Your task to perform on an android device: Open the map Image 0: 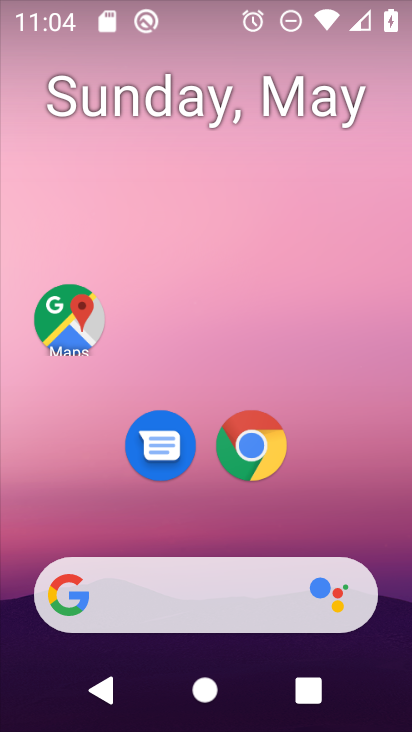
Step 0: drag from (178, 655) to (256, 107)
Your task to perform on an android device: Open the map Image 1: 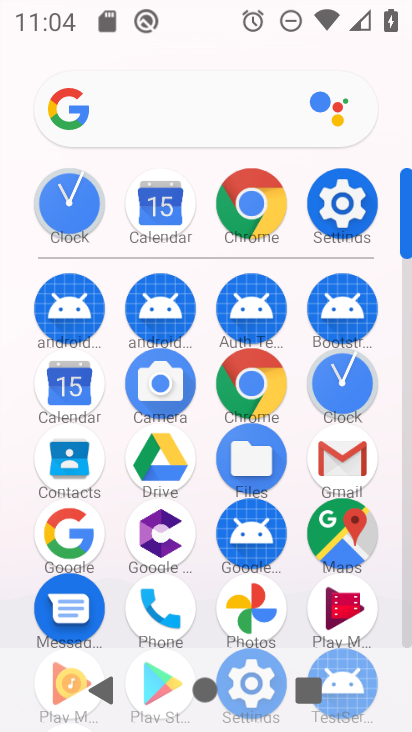
Step 1: click (351, 535)
Your task to perform on an android device: Open the map Image 2: 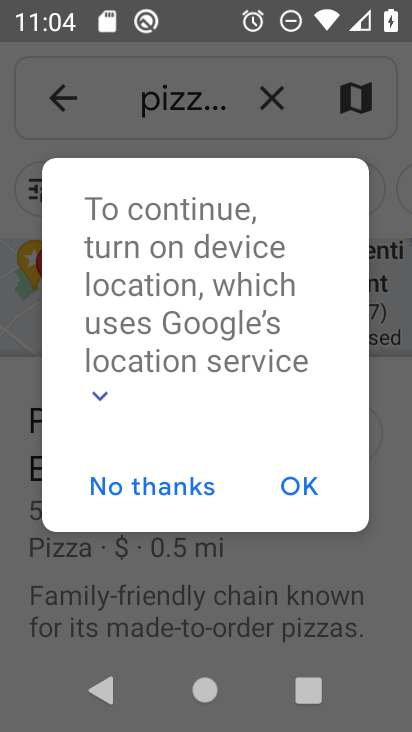
Step 2: click (313, 497)
Your task to perform on an android device: Open the map Image 3: 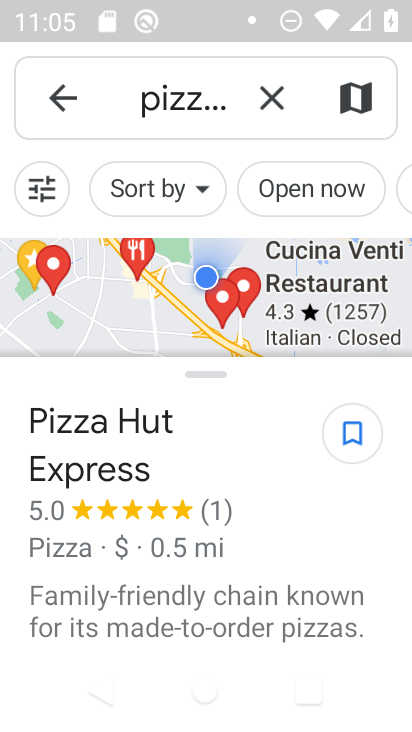
Step 3: task complete